Your task to perform on an android device: change notifications settings Image 0: 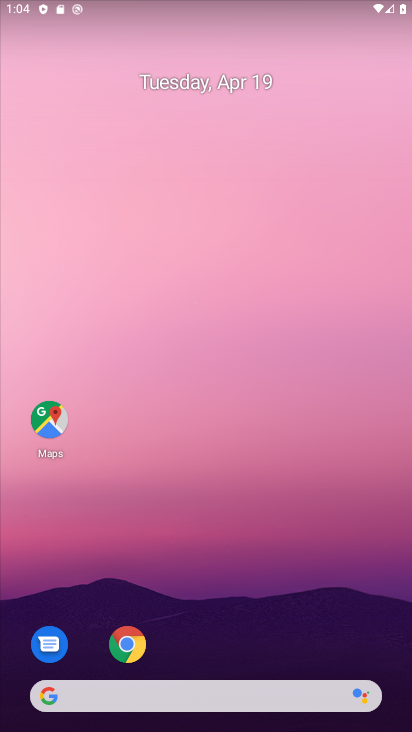
Step 0: drag from (194, 631) to (226, 3)
Your task to perform on an android device: change notifications settings Image 1: 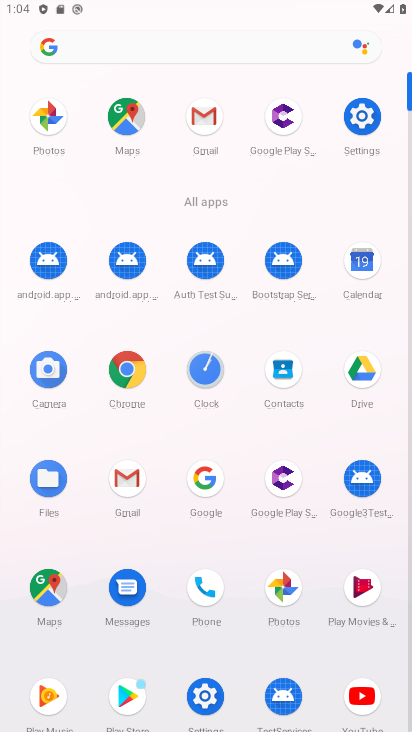
Step 1: click (367, 135)
Your task to perform on an android device: change notifications settings Image 2: 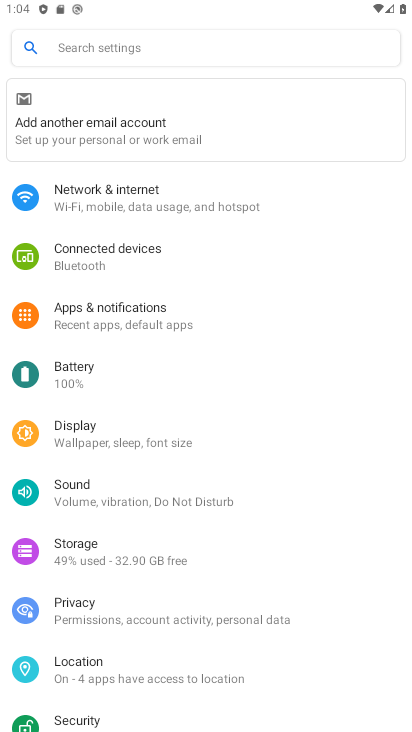
Step 2: click (161, 319)
Your task to perform on an android device: change notifications settings Image 3: 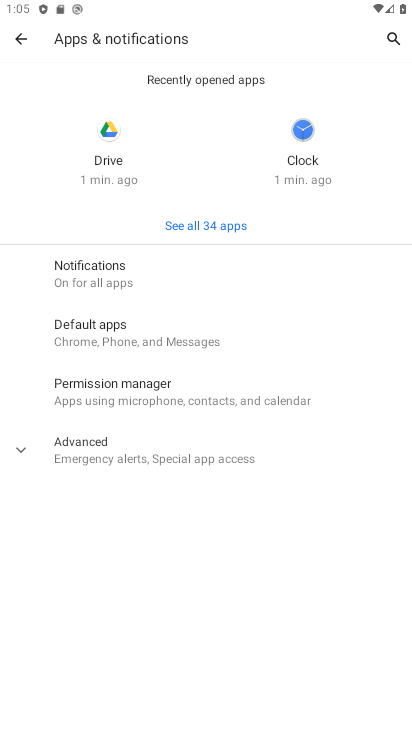
Step 3: click (128, 279)
Your task to perform on an android device: change notifications settings Image 4: 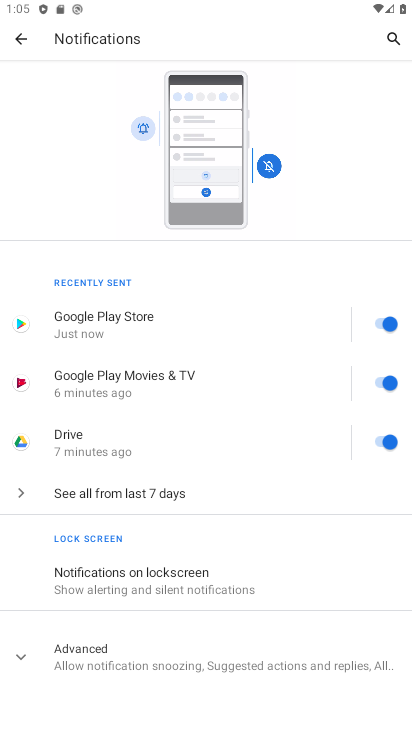
Step 4: click (372, 325)
Your task to perform on an android device: change notifications settings Image 5: 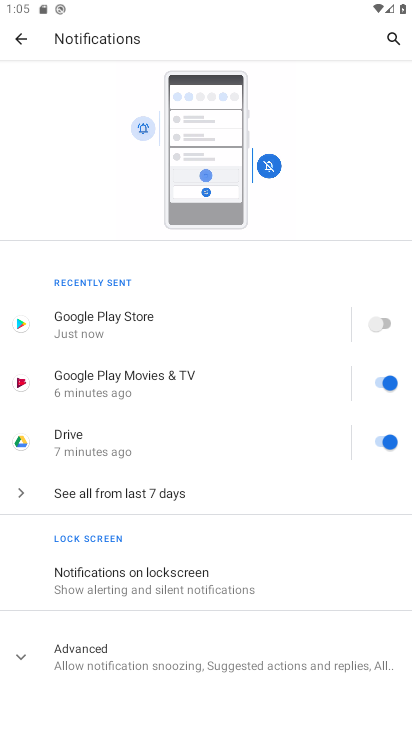
Step 5: click (382, 383)
Your task to perform on an android device: change notifications settings Image 6: 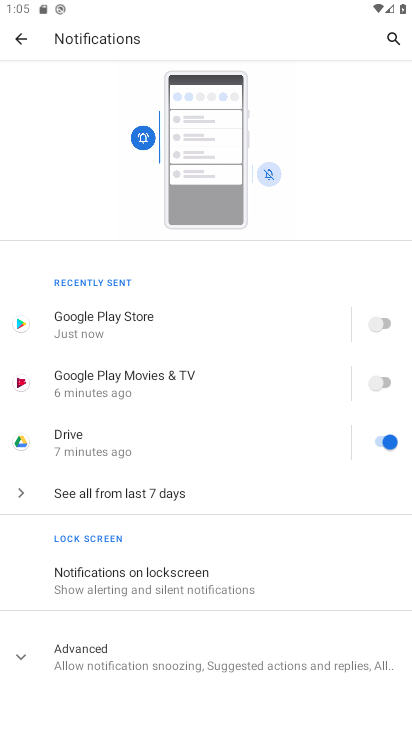
Step 6: click (382, 437)
Your task to perform on an android device: change notifications settings Image 7: 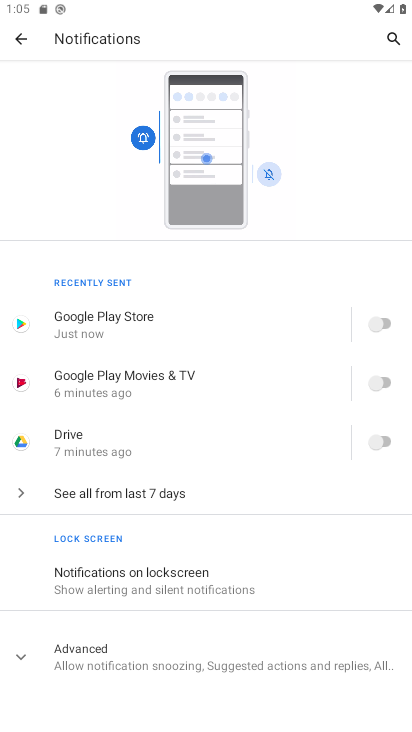
Step 7: click (178, 581)
Your task to perform on an android device: change notifications settings Image 8: 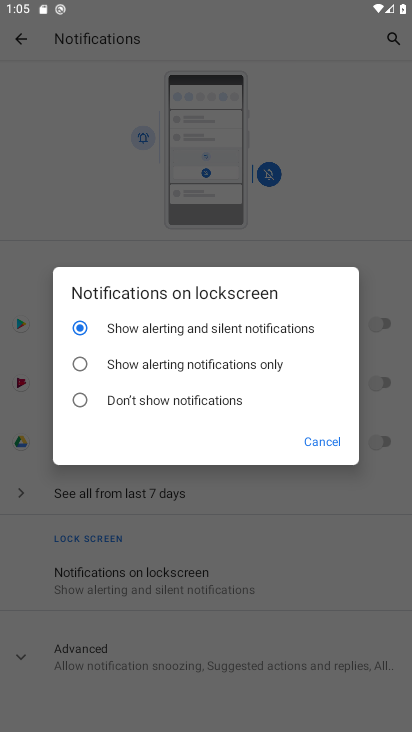
Step 8: click (81, 399)
Your task to perform on an android device: change notifications settings Image 9: 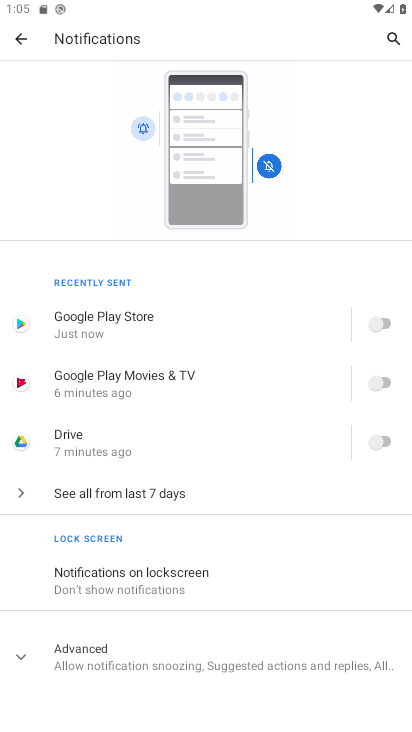
Step 9: task complete